Your task to perform on an android device: Go to location settings Image 0: 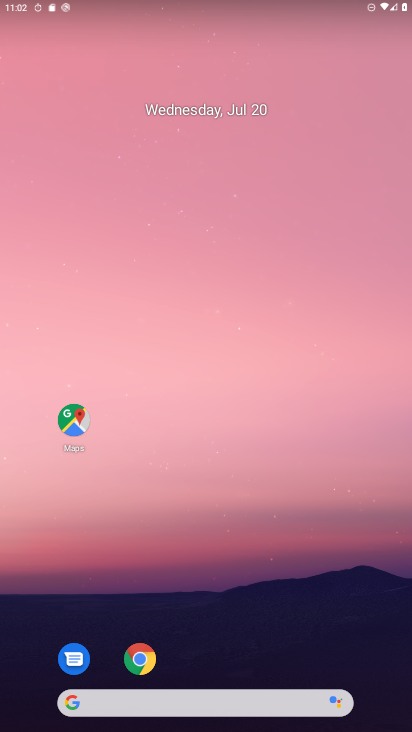
Step 0: drag from (272, 601) to (291, 71)
Your task to perform on an android device: Go to location settings Image 1: 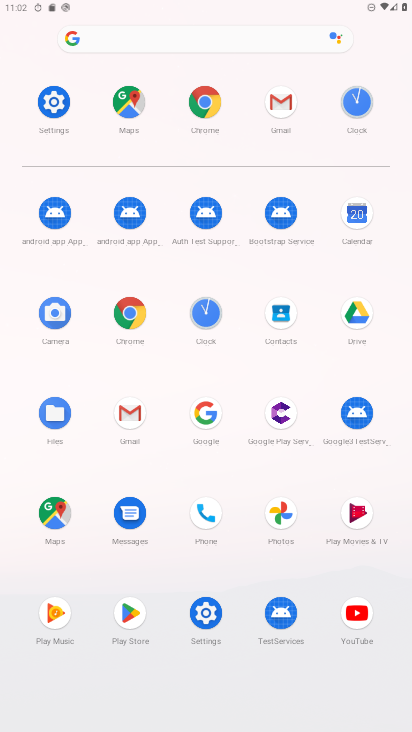
Step 1: click (50, 105)
Your task to perform on an android device: Go to location settings Image 2: 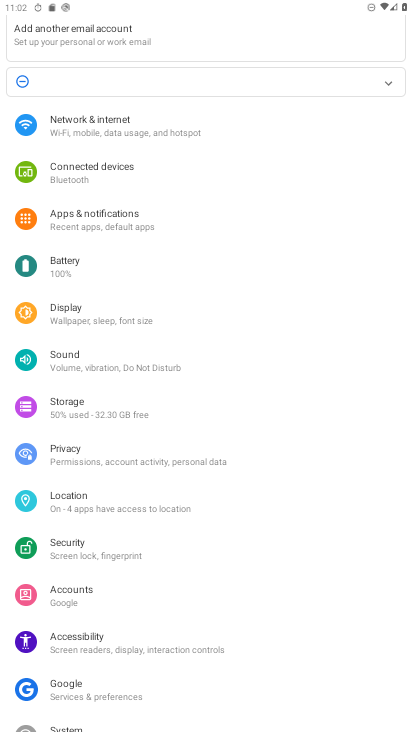
Step 2: click (91, 506)
Your task to perform on an android device: Go to location settings Image 3: 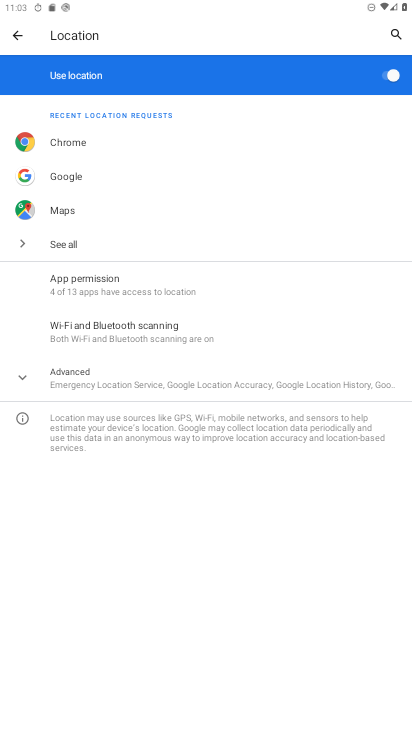
Step 3: task complete